Your task to perform on an android device: change the clock style Image 0: 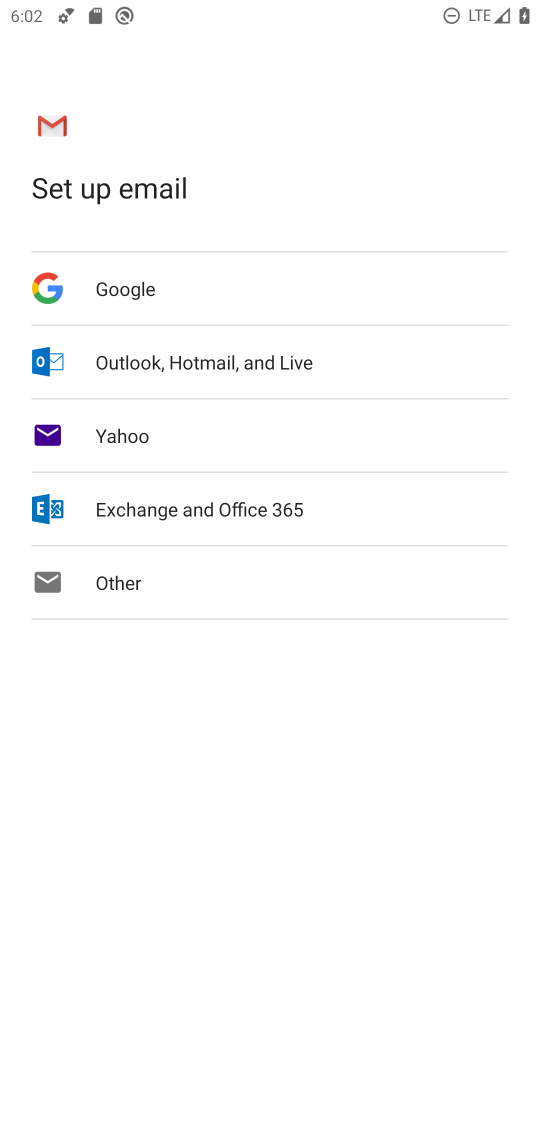
Step 0: press home button
Your task to perform on an android device: change the clock style Image 1: 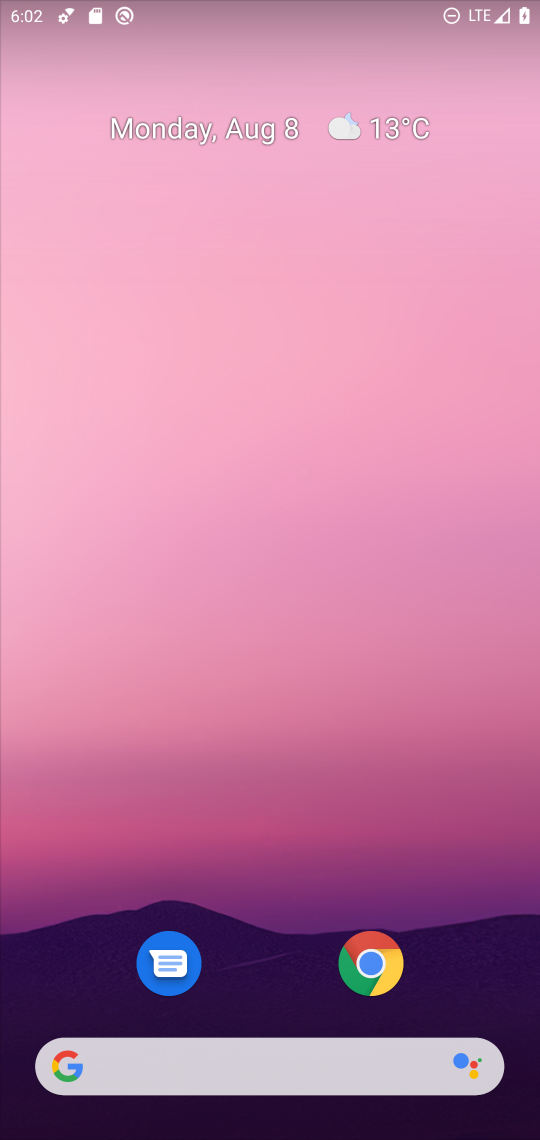
Step 1: drag from (227, 880) to (195, 162)
Your task to perform on an android device: change the clock style Image 2: 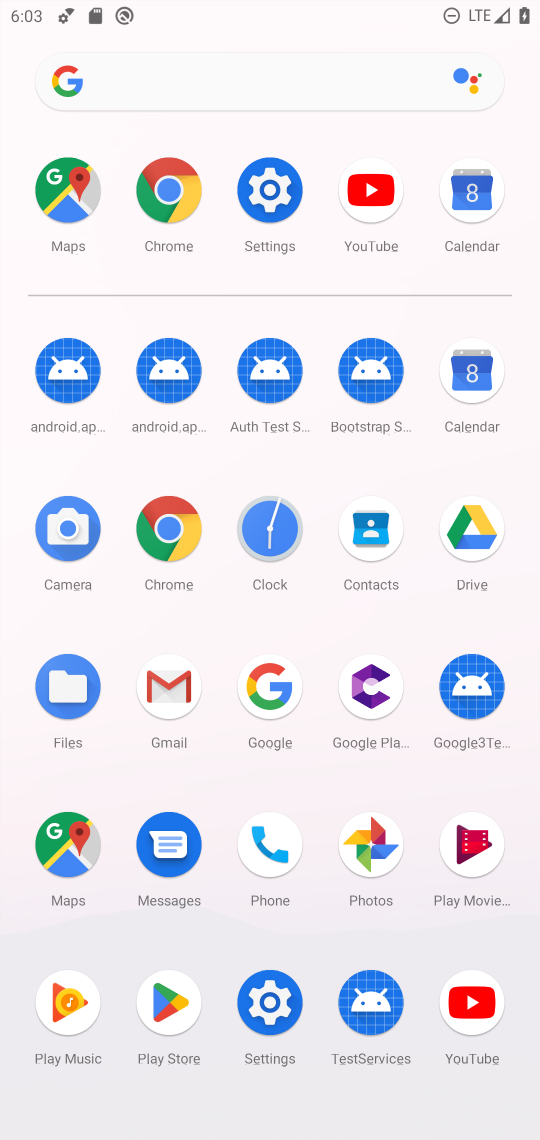
Step 2: click (266, 514)
Your task to perform on an android device: change the clock style Image 3: 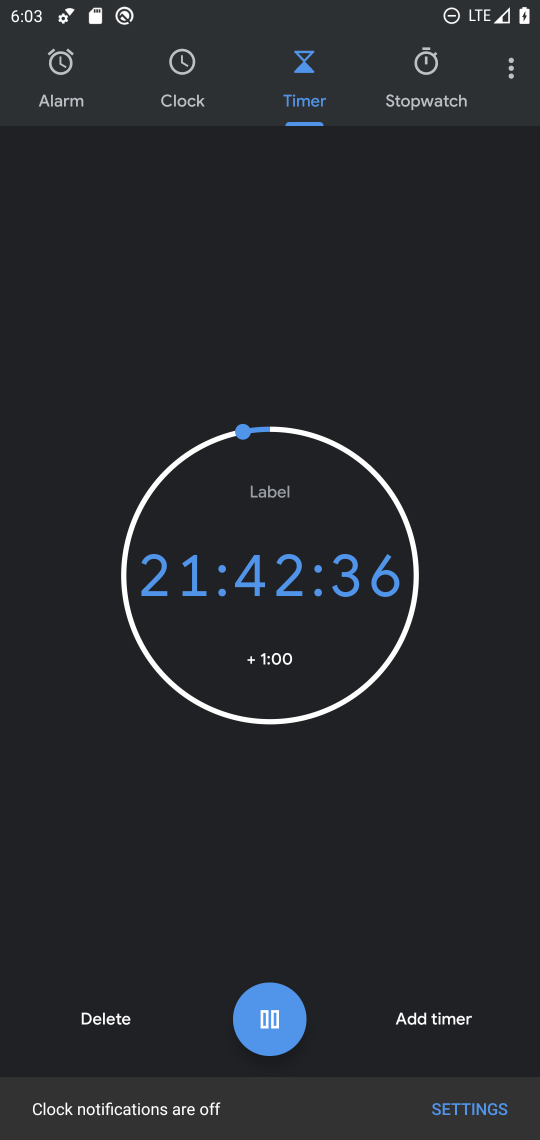
Step 3: click (504, 77)
Your task to perform on an android device: change the clock style Image 4: 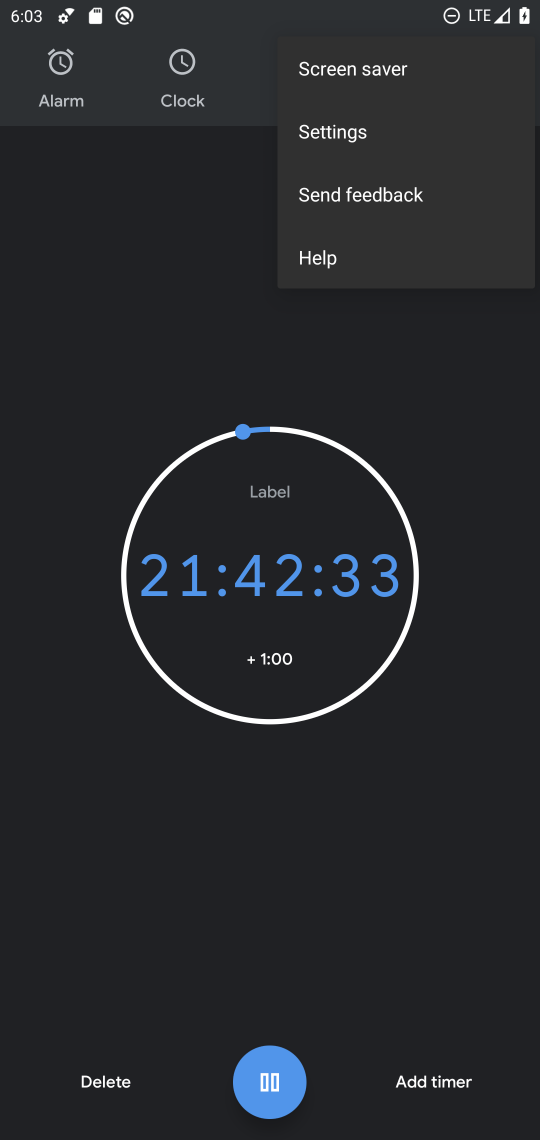
Step 4: click (348, 146)
Your task to perform on an android device: change the clock style Image 5: 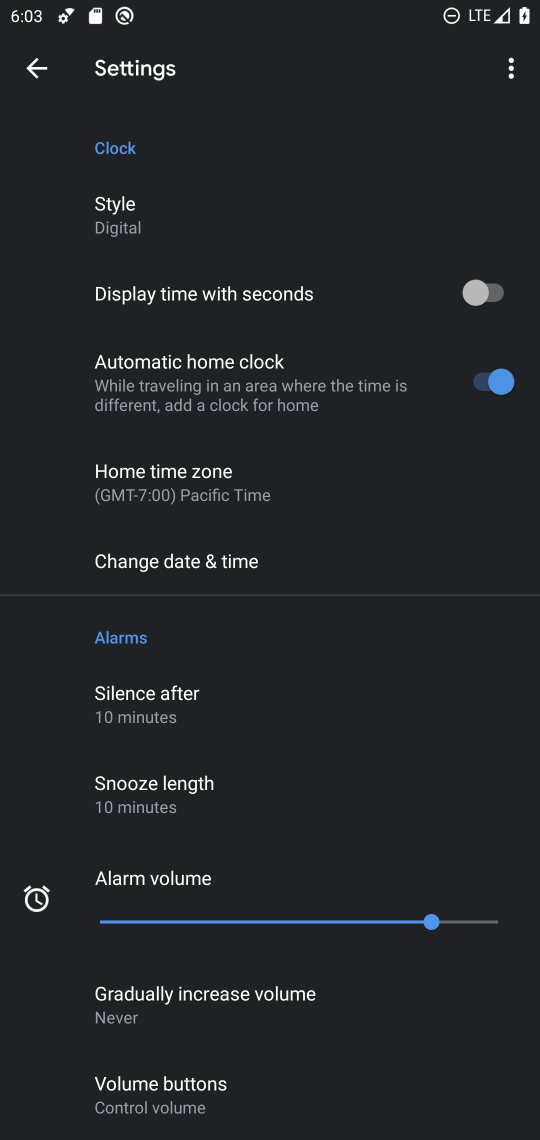
Step 5: click (134, 211)
Your task to perform on an android device: change the clock style Image 6: 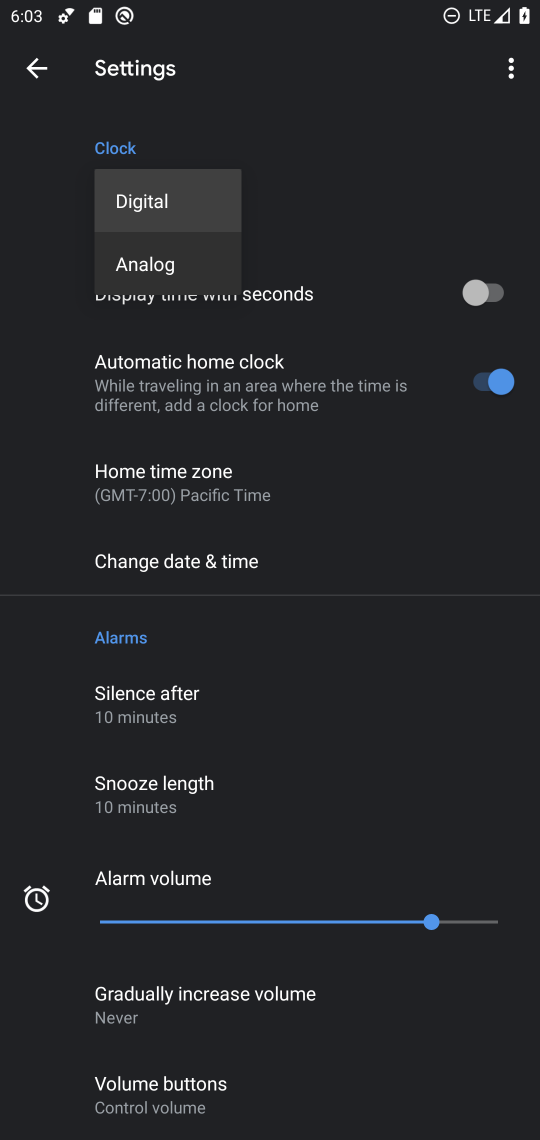
Step 6: click (173, 262)
Your task to perform on an android device: change the clock style Image 7: 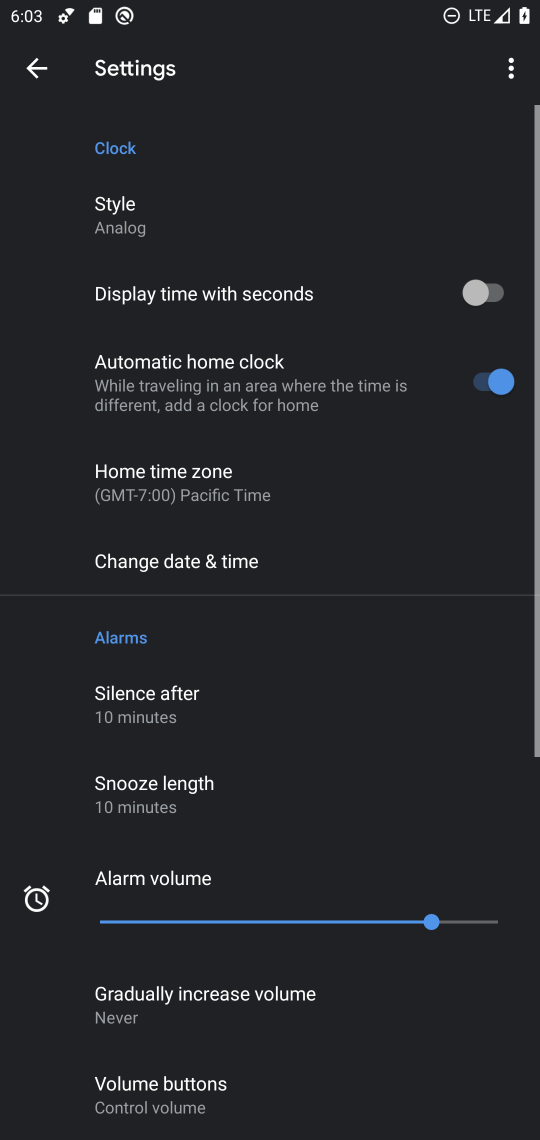
Step 7: task complete